Your task to perform on an android device: Open the stopwatch Image 0: 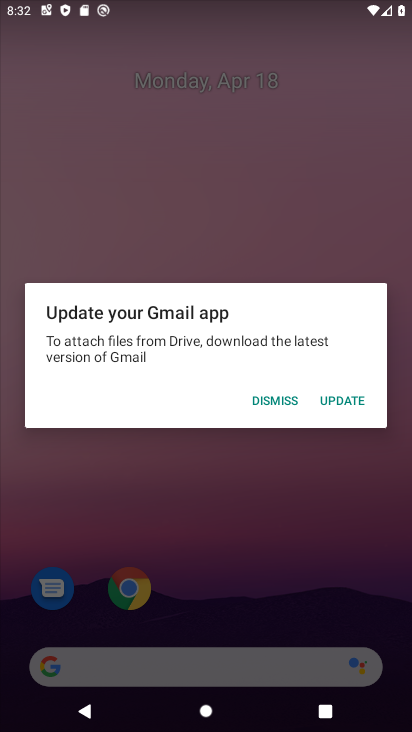
Step 0: press home button
Your task to perform on an android device: Open the stopwatch Image 1: 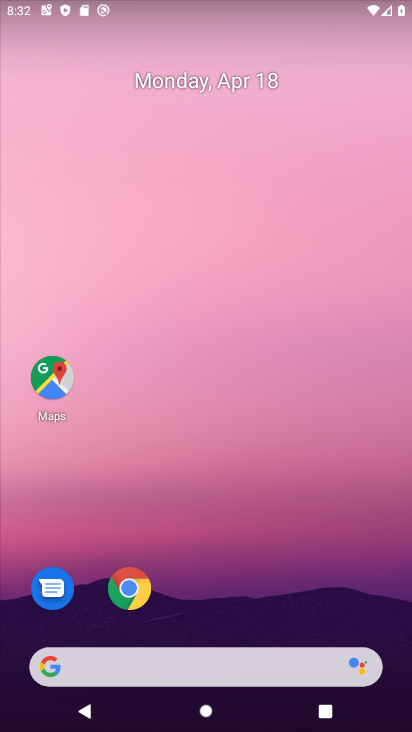
Step 1: drag from (9, 517) to (247, 80)
Your task to perform on an android device: Open the stopwatch Image 2: 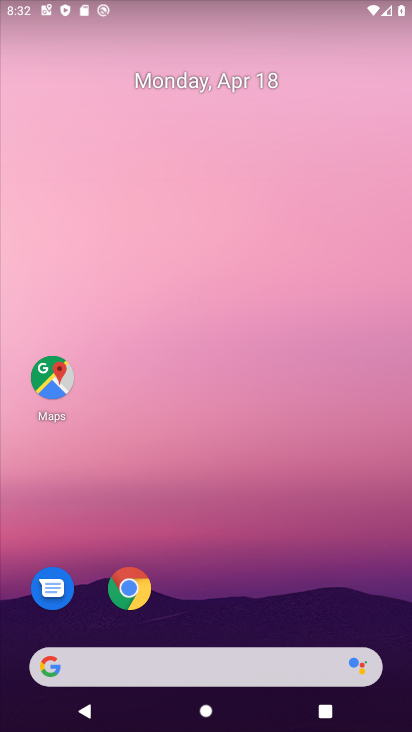
Step 2: drag from (90, 473) to (233, 46)
Your task to perform on an android device: Open the stopwatch Image 3: 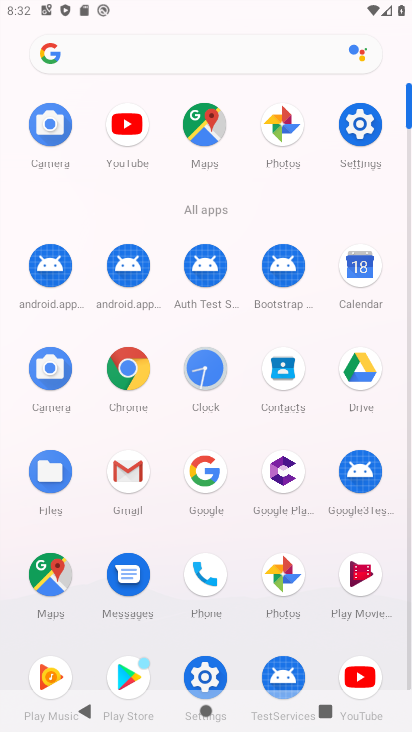
Step 3: click (205, 372)
Your task to perform on an android device: Open the stopwatch Image 4: 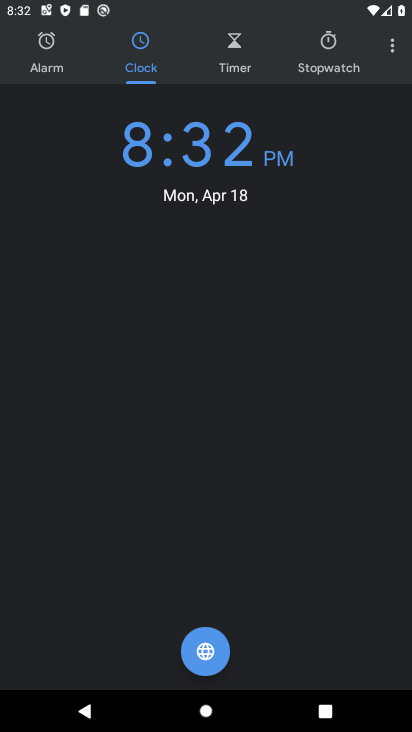
Step 4: click (340, 54)
Your task to perform on an android device: Open the stopwatch Image 5: 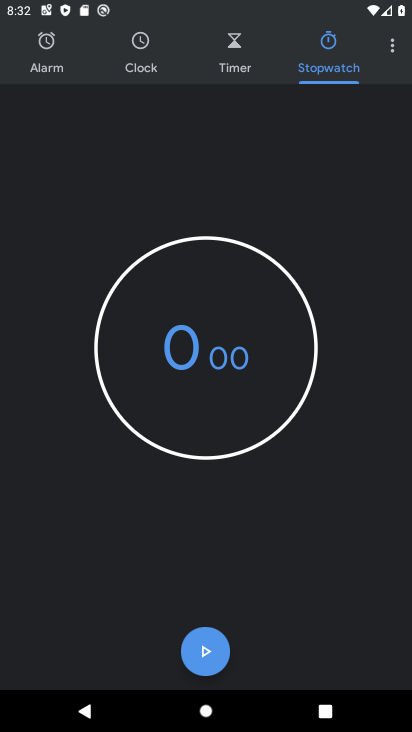
Step 5: task complete